Your task to perform on an android device: turn on airplane mode Image 0: 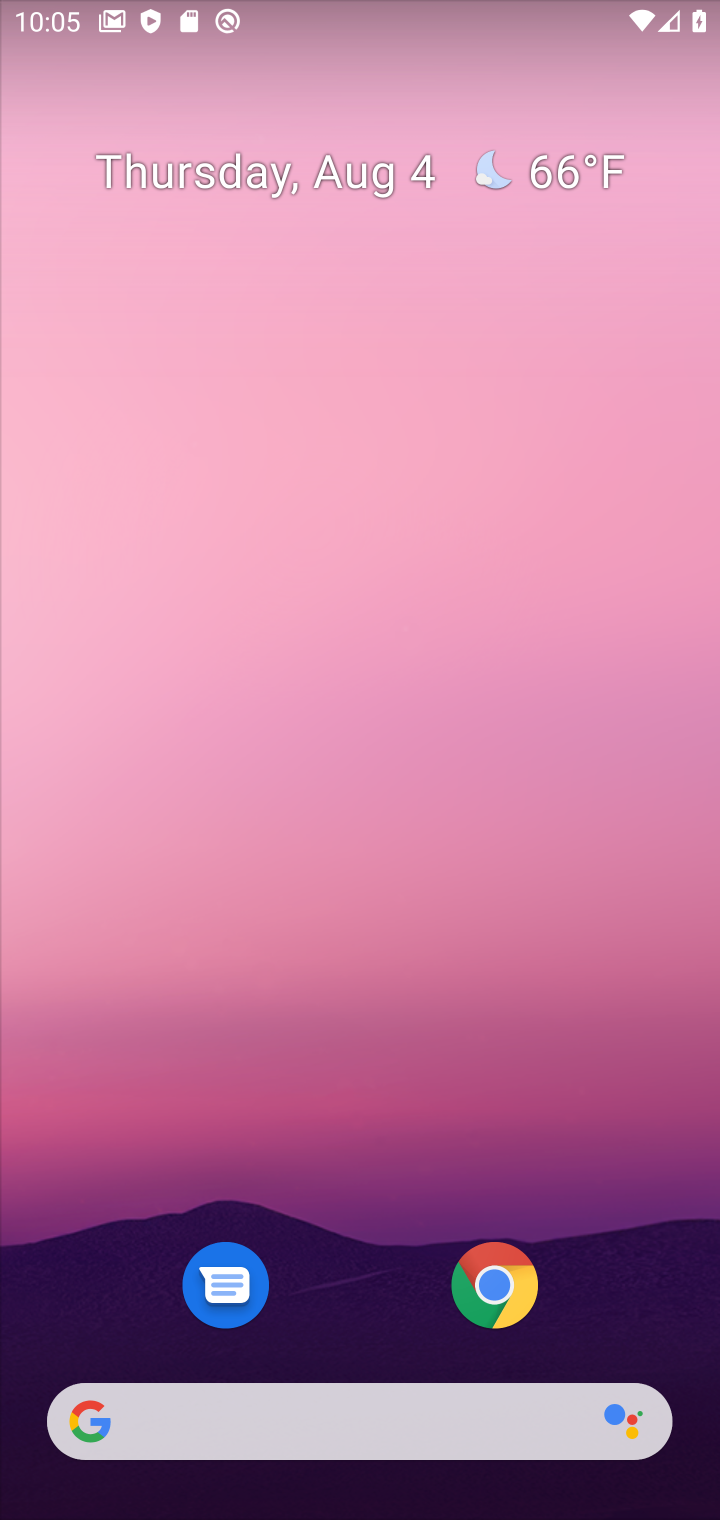
Step 0: press home button
Your task to perform on an android device: turn on airplane mode Image 1: 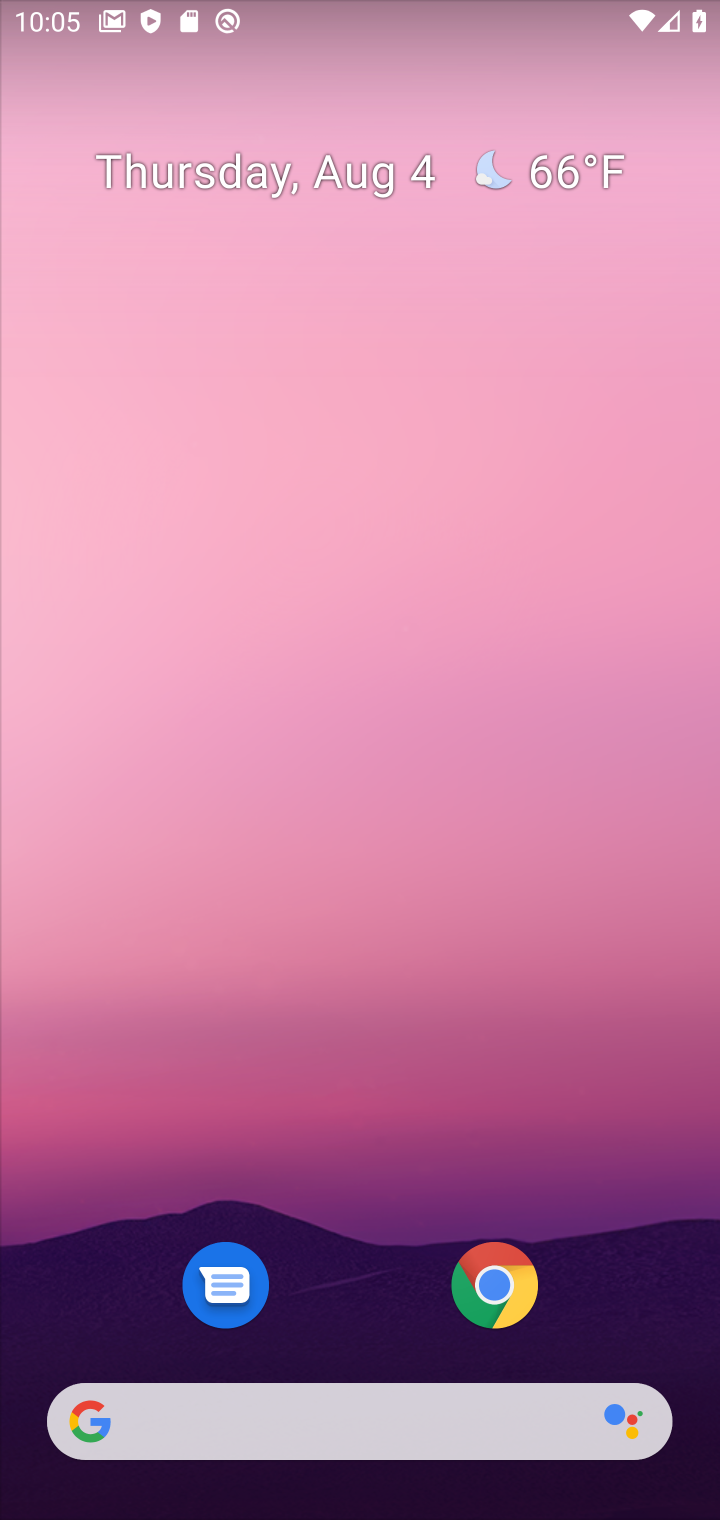
Step 1: drag from (498, 0) to (321, 934)
Your task to perform on an android device: turn on airplane mode Image 2: 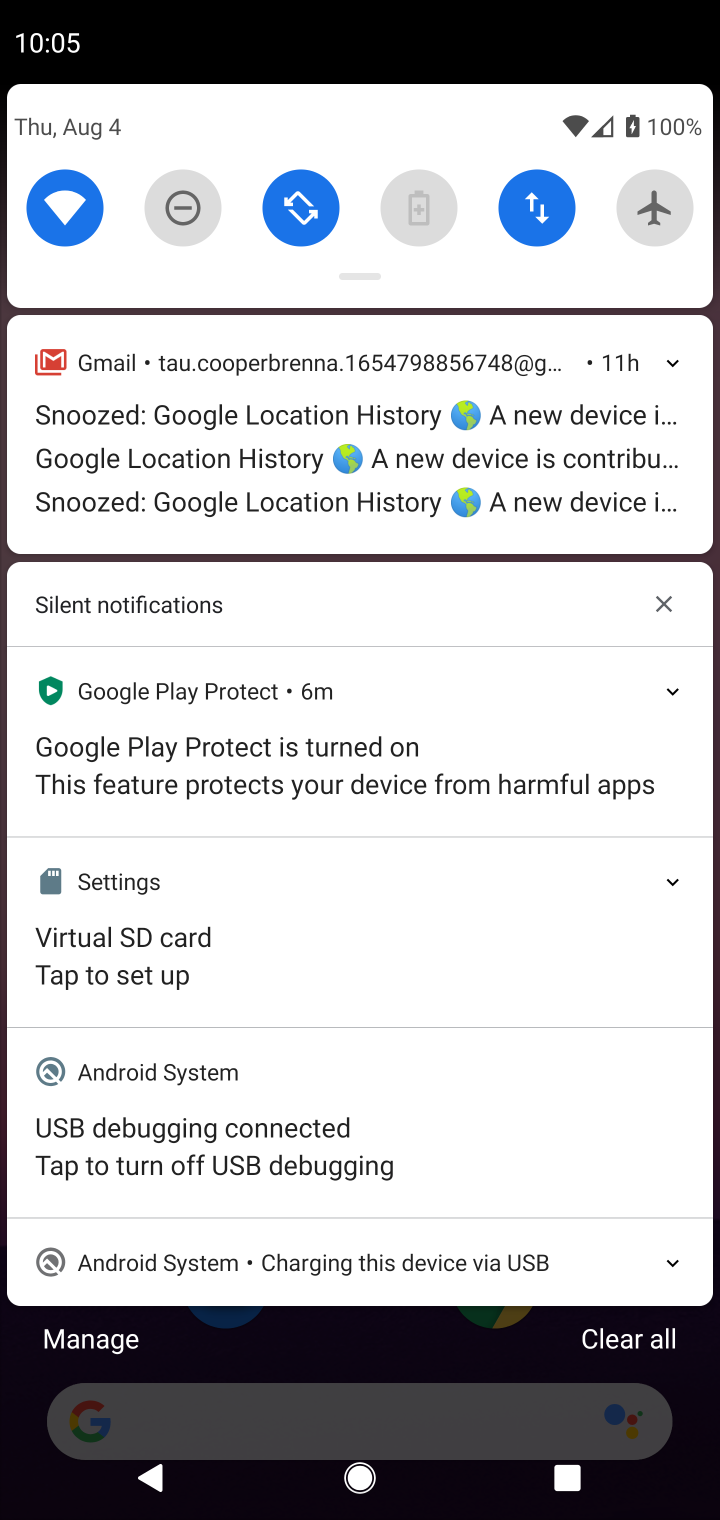
Step 2: click (641, 210)
Your task to perform on an android device: turn on airplane mode Image 3: 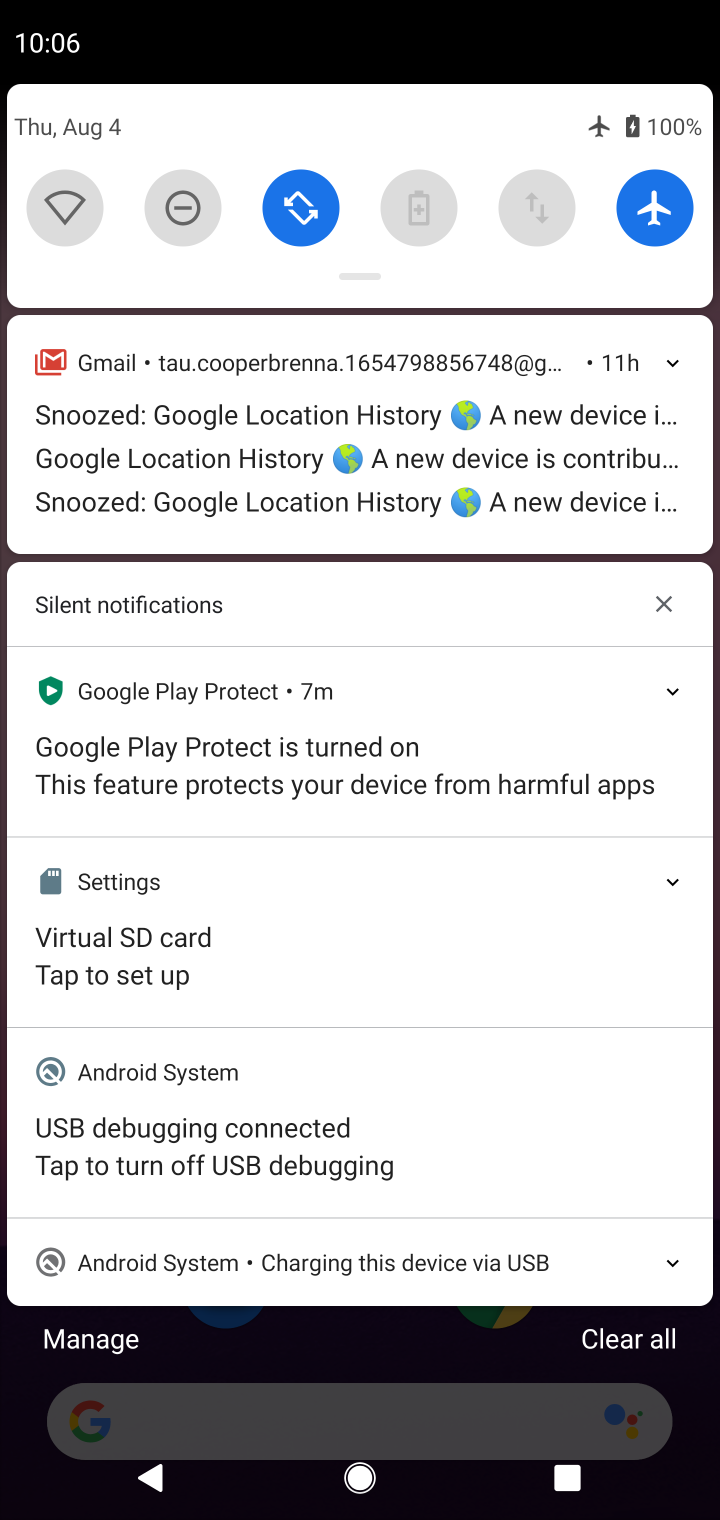
Step 3: task complete